Your task to perform on an android device: change the clock display to digital Image 0: 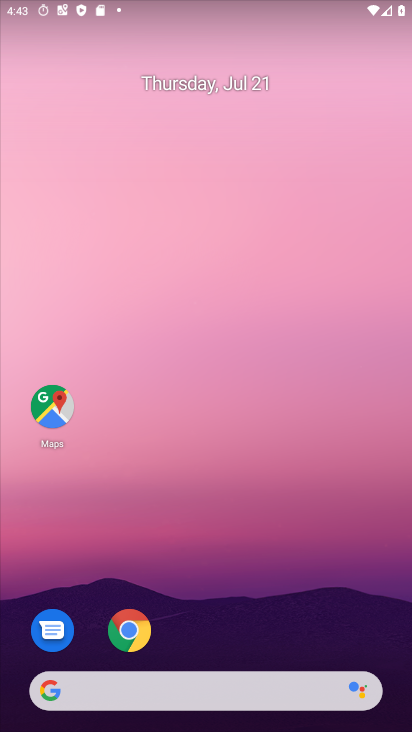
Step 0: drag from (193, 687) to (242, 179)
Your task to perform on an android device: change the clock display to digital Image 1: 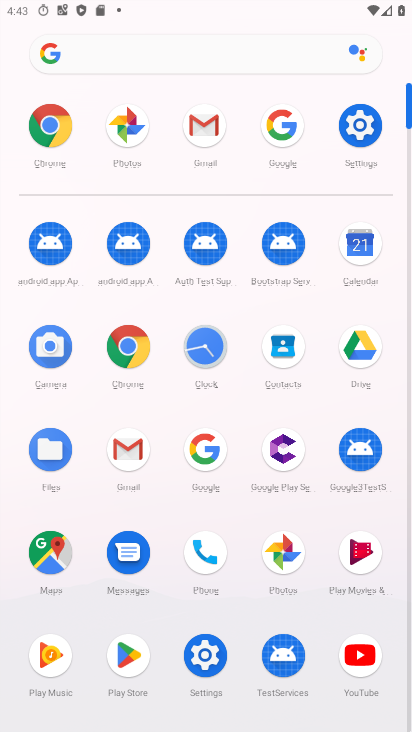
Step 1: click (205, 348)
Your task to perform on an android device: change the clock display to digital Image 2: 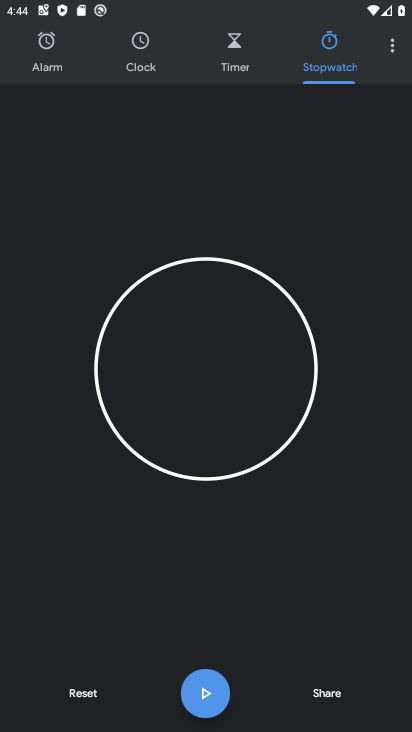
Step 2: click (391, 46)
Your task to perform on an android device: change the clock display to digital Image 3: 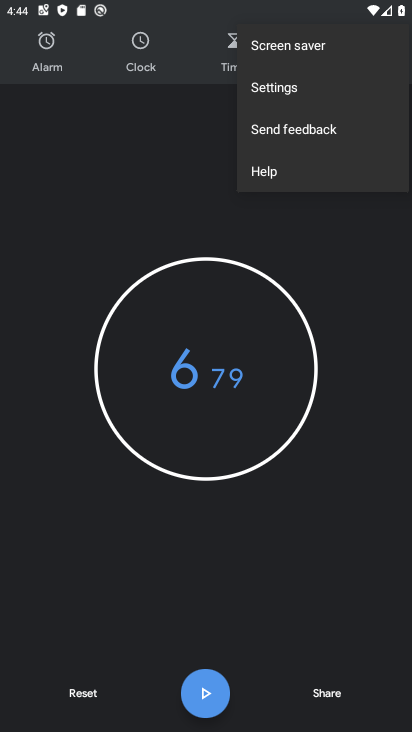
Step 3: click (288, 87)
Your task to perform on an android device: change the clock display to digital Image 4: 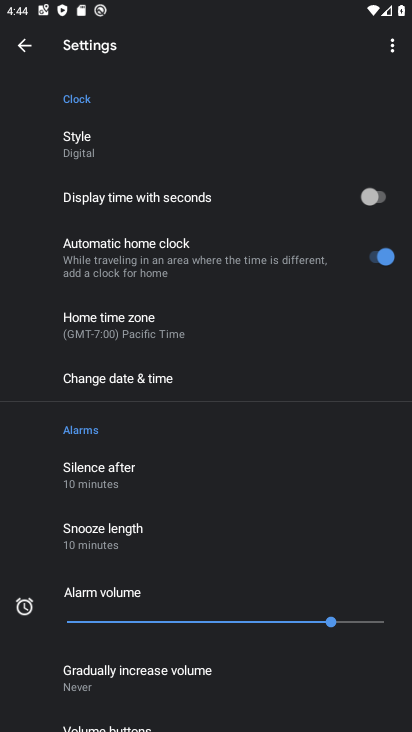
Step 4: click (82, 137)
Your task to perform on an android device: change the clock display to digital Image 5: 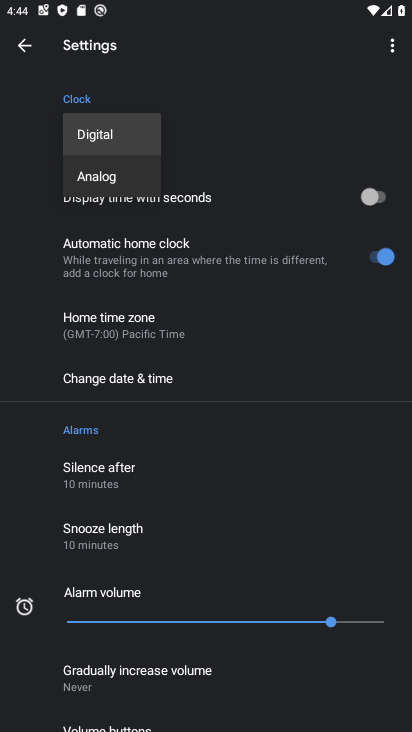
Step 5: click (104, 135)
Your task to perform on an android device: change the clock display to digital Image 6: 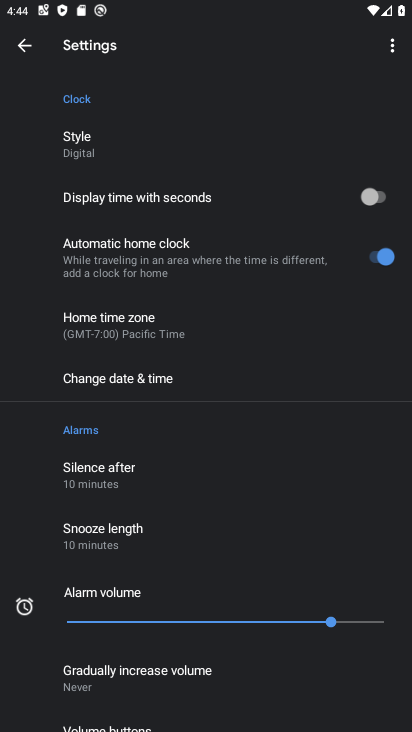
Step 6: task complete